Your task to perform on an android device: Go to notification settings Image 0: 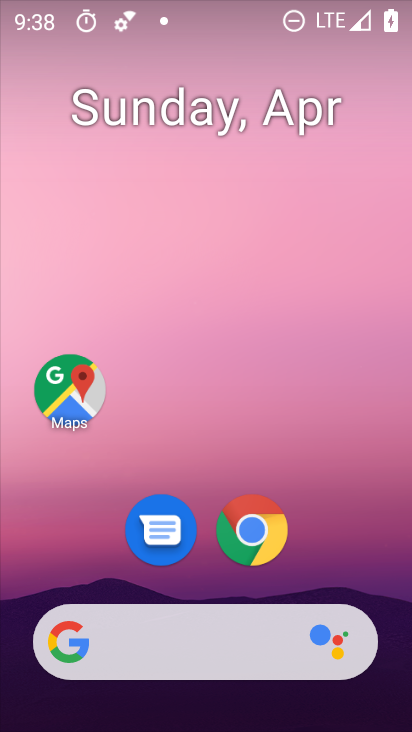
Step 0: drag from (379, 581) to (398, 37)
Your task to perform on an android device: Go to notification settings Image 1: 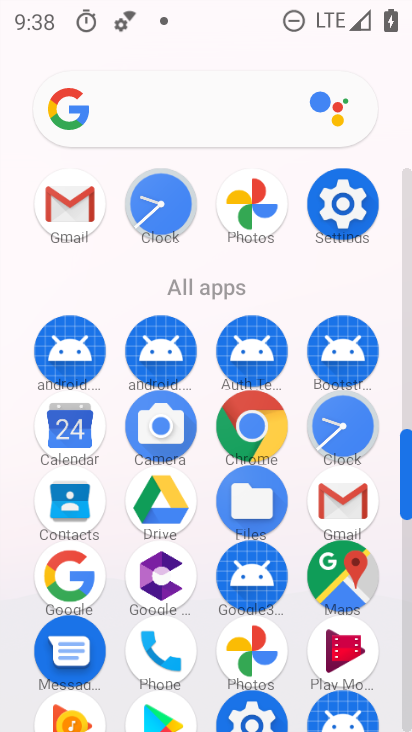
Step 1: click (341, 208)
Your task to perform on an android device: Go to notification settings Image 2: 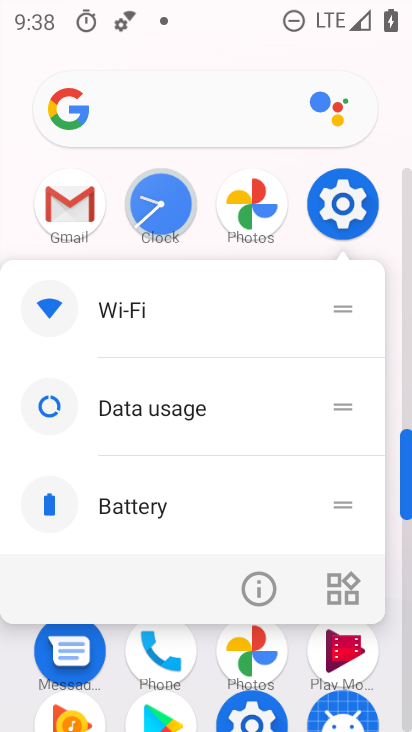
Step 2: click (341, 208)
Your task to perform on an android device: Go to notification settings Image 3: 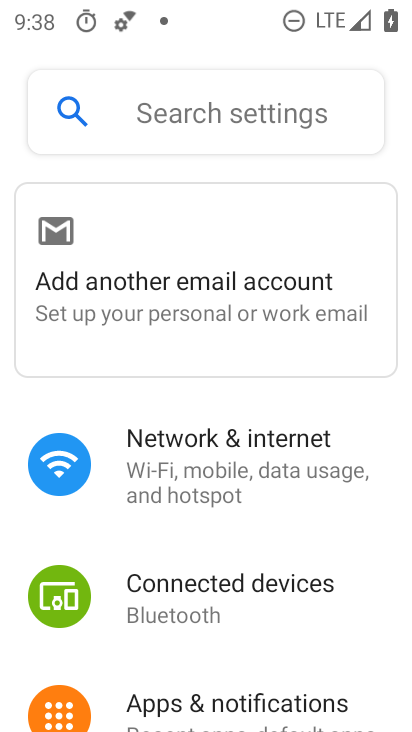
Step 3: drag from (366, 547) to (366, 320)
Your task to perform on an android device: Go to notification settings Image 4: 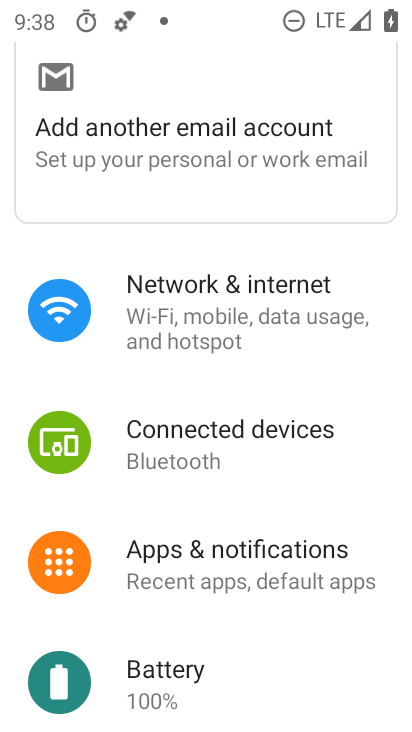
Step 4: click (227, 549)
Your task to perform on an android device: Go to notification settings Image 5: 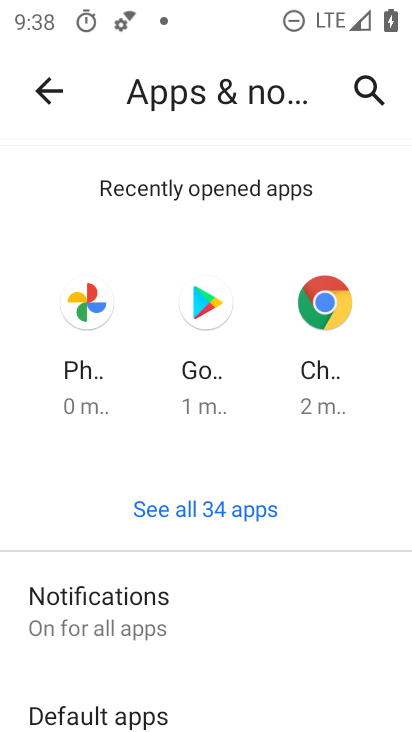
Step 5: task complete